Your task to perform on an android device: Go to Android settings Image 0: 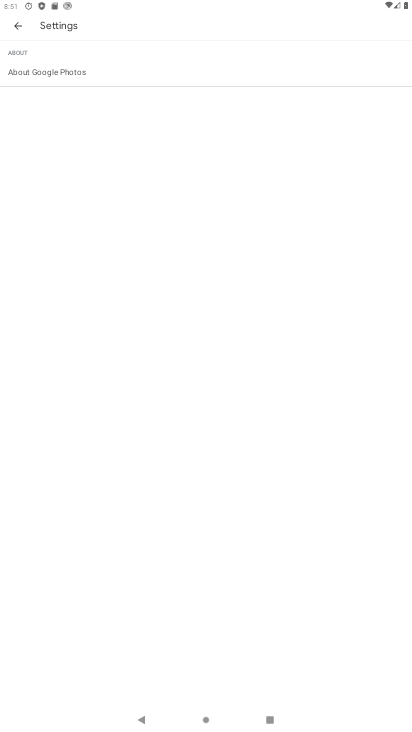
Step 0: press home button
Your task to perform on an android device: Go to Android settings Image 1: 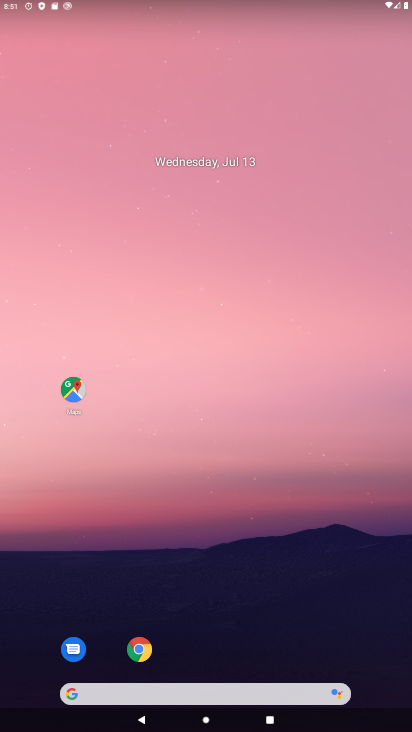
Step 1: click (167, 641)
Your task to perform on an android device: Go to Android settings Image 2: 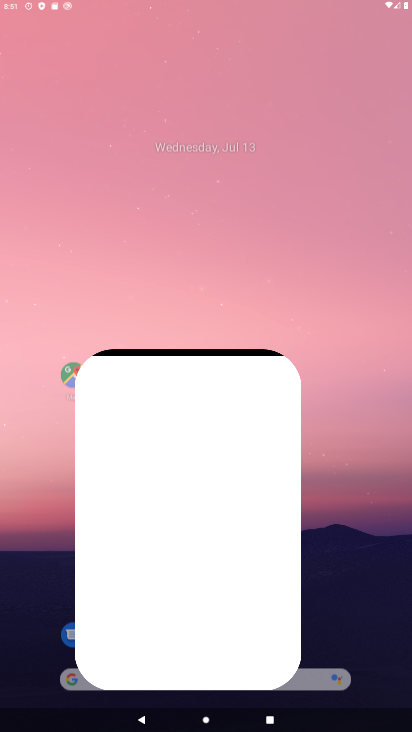
Step 2: drag from (261, 697) to (240, 54)
Your task to perform on an android device: Go to Android settings Image 3: 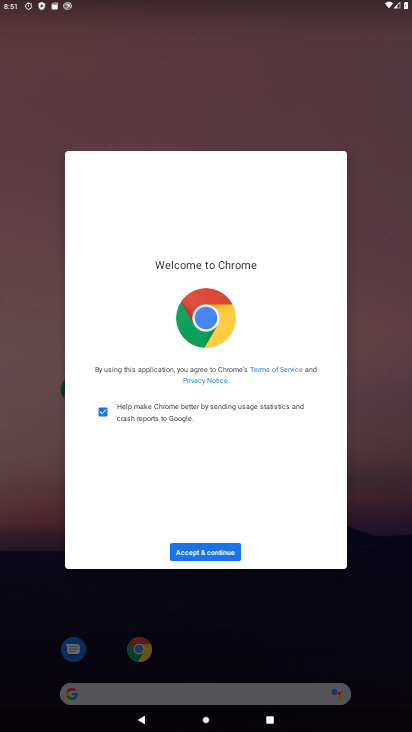
Step 3: press home button
Your task to perform on an android device: Go to Android settings Image 4: 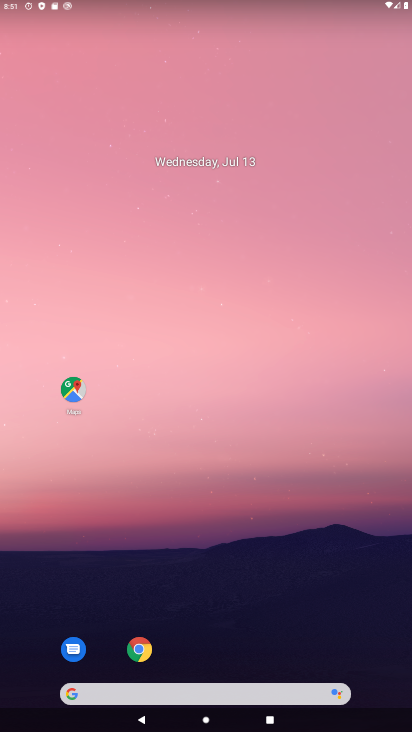
Step 4: drag from (254, 690) to (235, 9)
Your task to perform on an android device: Go to Android settings Image 5: 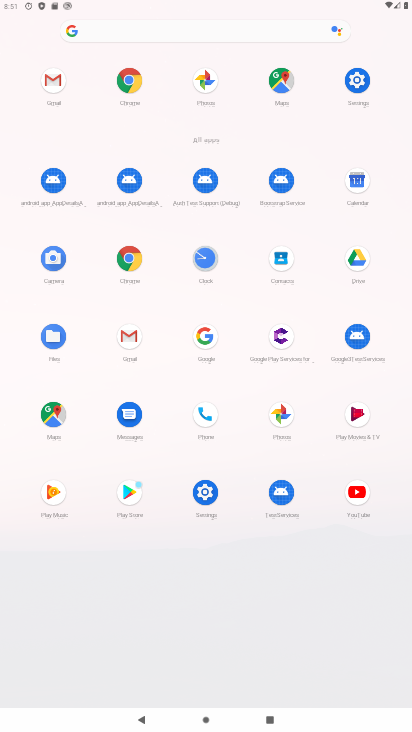
Step 5: click (368, 79)
Your task to perform on an android device: Go to Android settings Image 6: 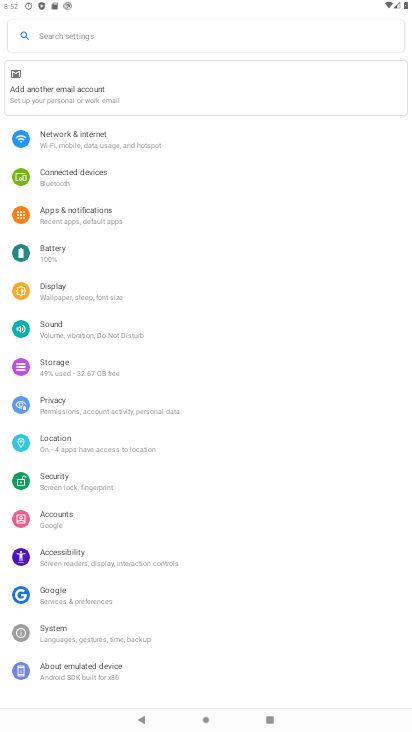
Step 6: click (94, 672)
Your task to perform on an android device: Go to Android settings Image 7: 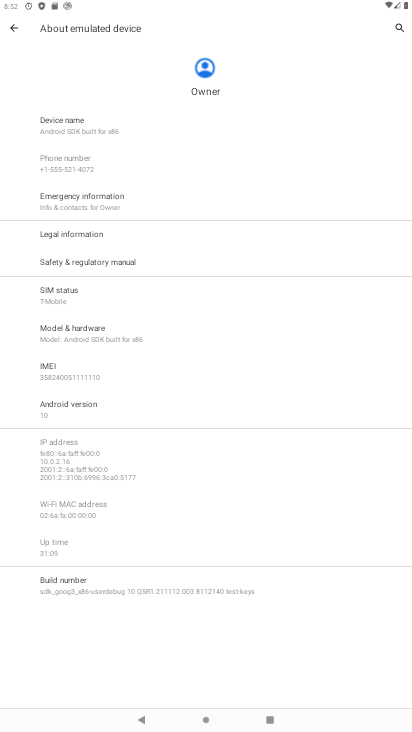
Step 7: task complete